Your task to perform on an android device: Open the Play Movies app and select the watchlist tab. Image 0: 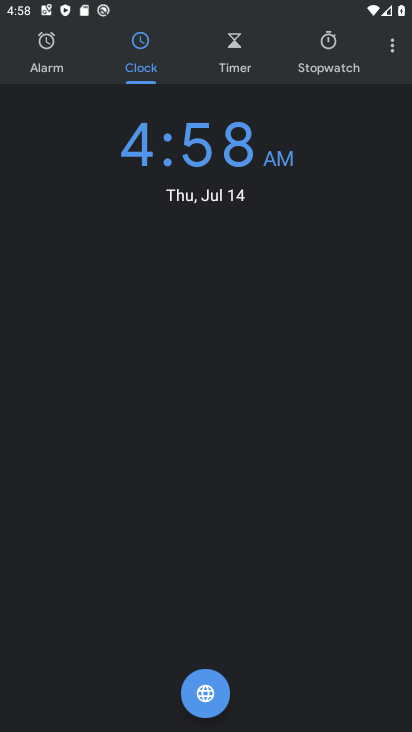
Step 0: press home button
Your task to perform on an android device: Open the Play Movies app and select the watchlist tab. Image 1: 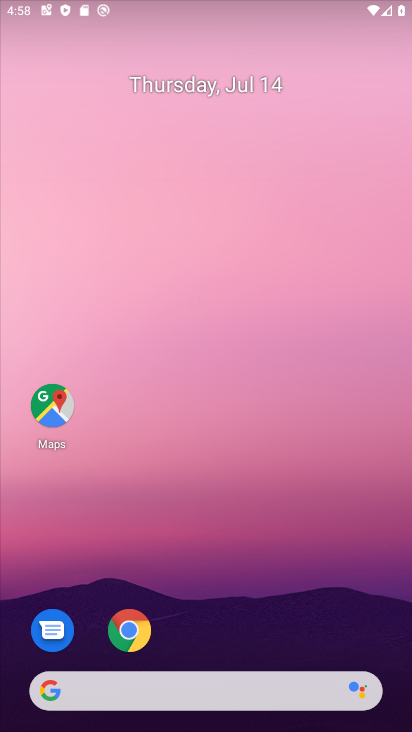
Step 1: drag from (287, 668) to (313, 4)
Your task to perform on an android device: Open the Play Movies app and select the watchlist tab. Image 2: 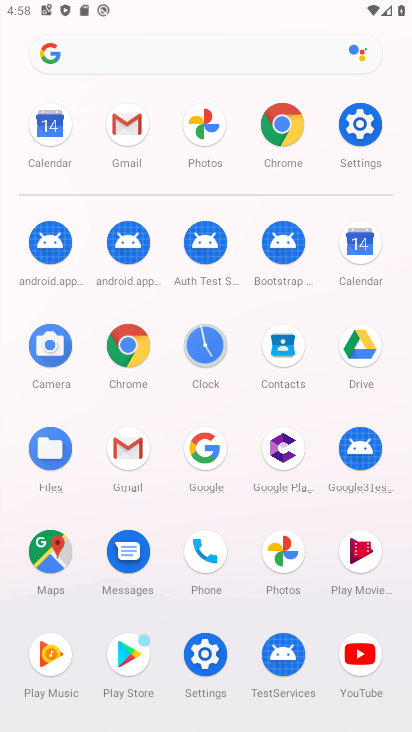
Step 2: click (373, 553)
Your task to perform on an android device: Open the Play Movies app and select the watchlist tab. Image 3: 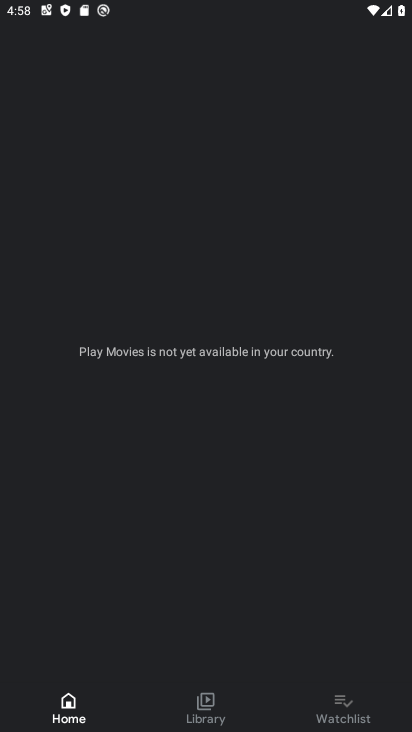
Step 3: click (355, 701)
Your task to perform on an android device: Open the Play Movies app and select the watchlist tab. Image 4: 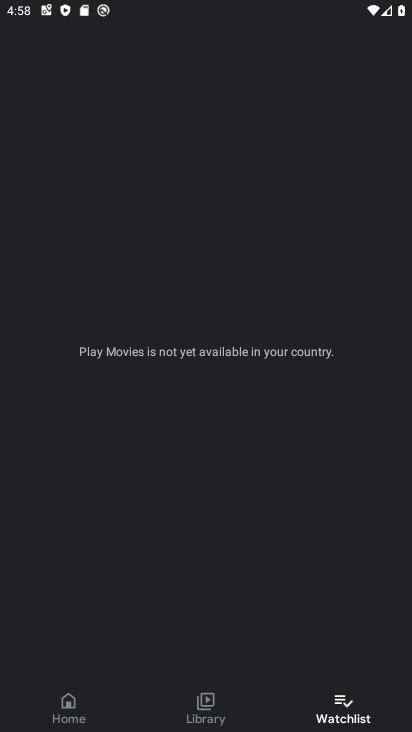
Step 4: task complete